Your task to perform on an android device: Open Amazon Image 0: 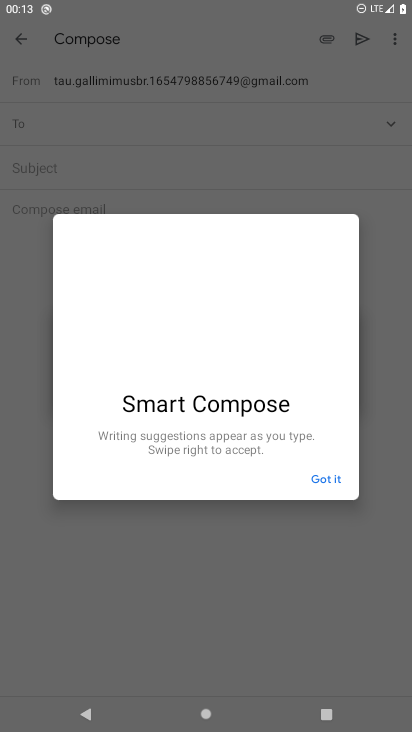
Step 0: press home button
Your task to perform on an android device: Open Amazon Image 1: 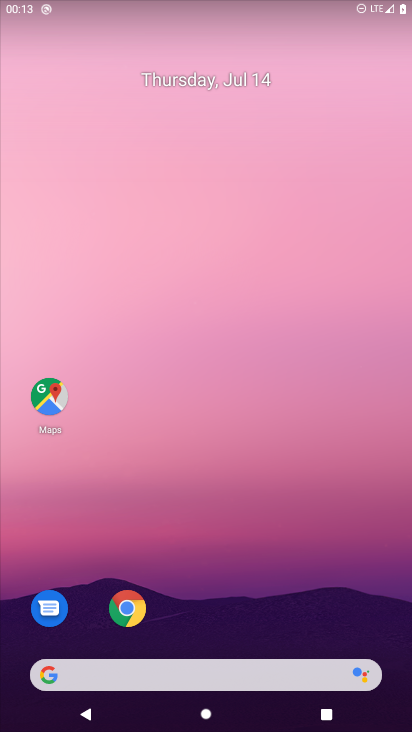
Step 1: click (130, 619)
Your task to perform on an android device: Open Amazon Image 2: 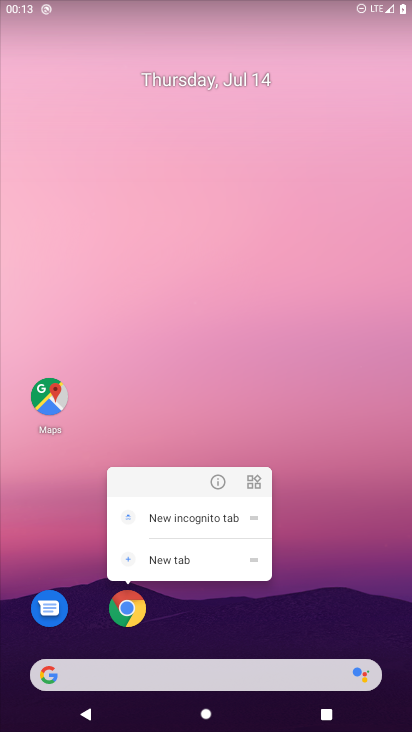
Step 2: click (129, 630)
Your task to perform on an android device: Open Amazon Image 3: 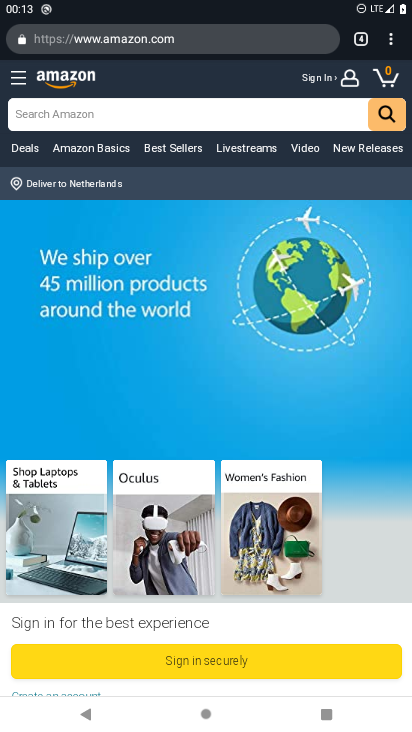
Step 3: task complete